Your task to perform on an android device: toggle javascript in the chrome app Image 0: 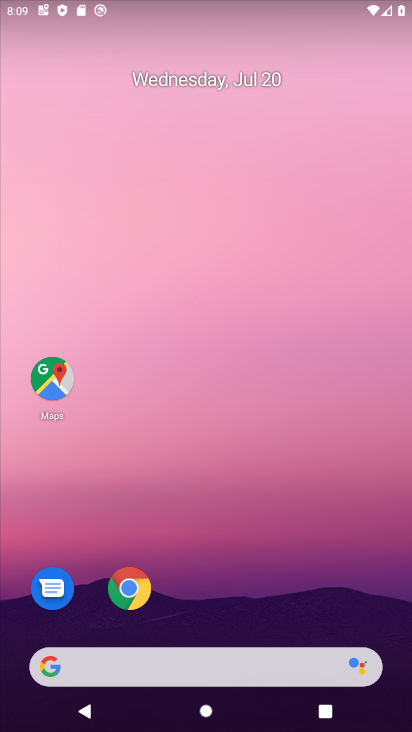
Step 0: click (129, 579)
Your task to perform on an android device: toggle javascript in the chrome app Image 1: 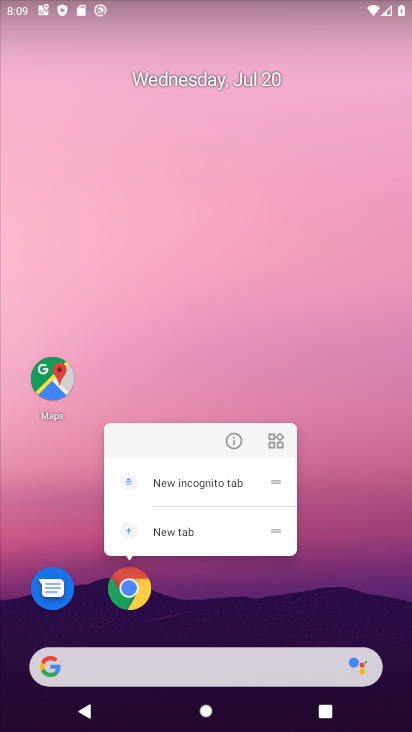
Step 1: click (129, 579)
Your task to perform on an android device: toggle javascript in the chrome app Image 2: 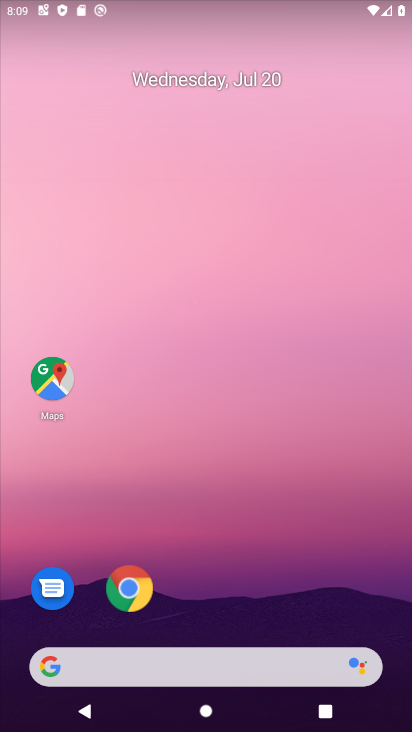
Step 2: click (129, 579)
Your task to perform on an android device: toggle javascript in the chrome app Image 3: 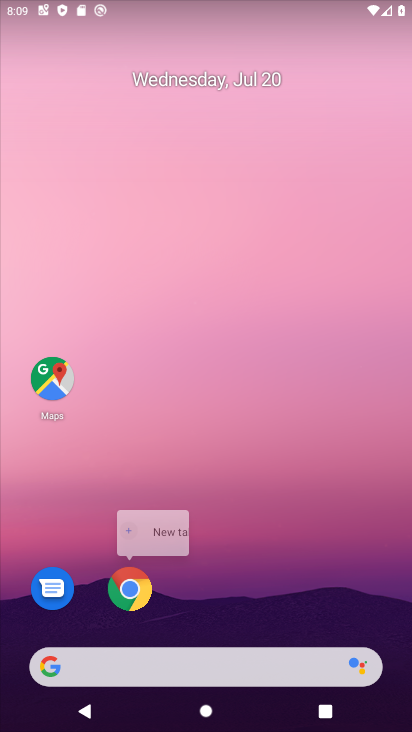
Step 3: click (129, 579)
Your task to perform on an android device: toggle javascript in the chrome app Image 4: 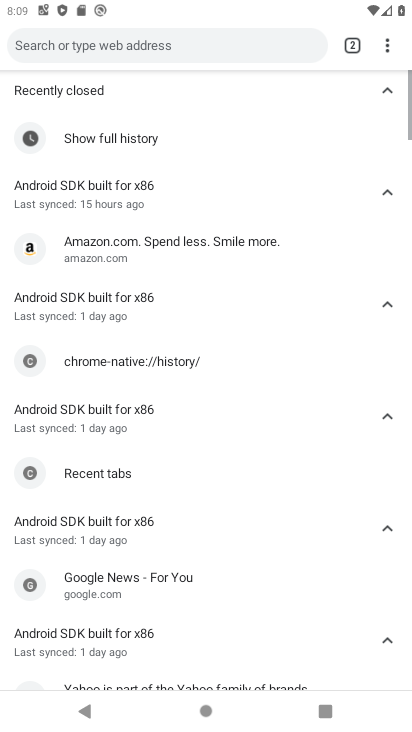
Step 4: click (382, 48)
Your task to perform on an android device: toggle javascript in the chrome app Image 5: 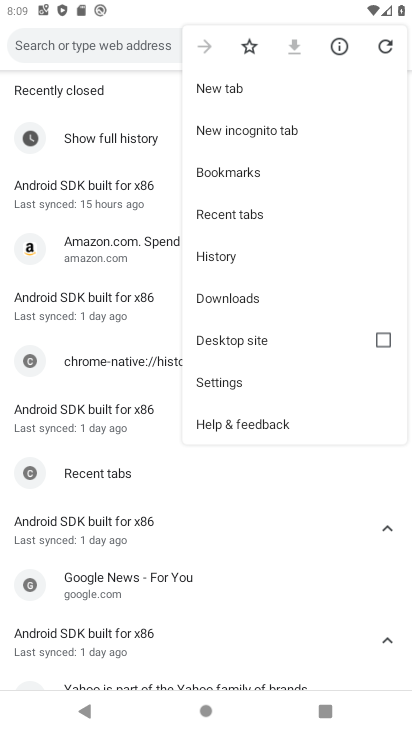
Step 5: click (252, 373)
Your task to perform on an android device: toggle javascript in the chrome app Image 6: 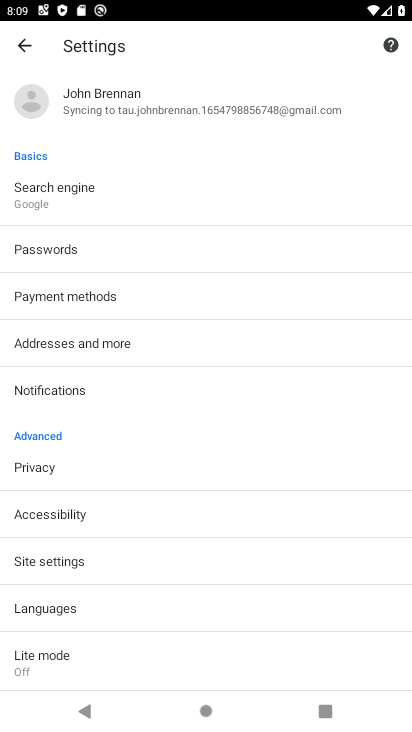
Step 6: click (91, 563)
Your task to perform on an android device: toggle javascript in the chrome app Image 7: 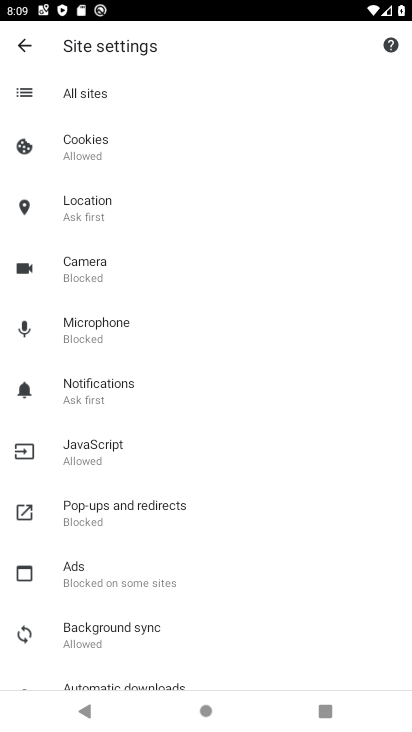
Step 7: click (107, 446)
Your task to perform on an android device: toggle javascript in the chrome app Image 8: 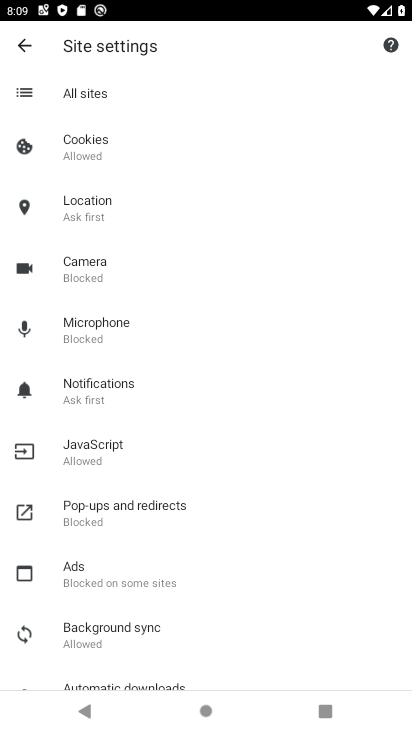
Step 8: click (107, 446)
Your task to perform on an android device: toggle javascript in the chrome app Image 9: 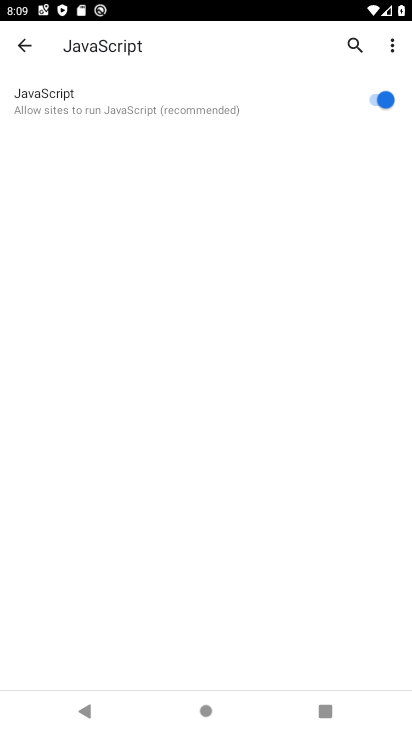
Step 9: click (382, 102)
Your task to perform on an android device: toggle javascript in the chrome app Image 10: 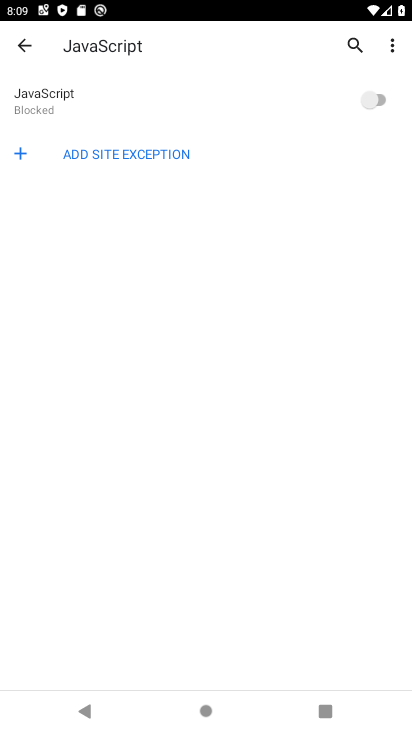
Step 10: task complete